Your task to perform on an android device: What's on my calendar tomorrow? Image 0: 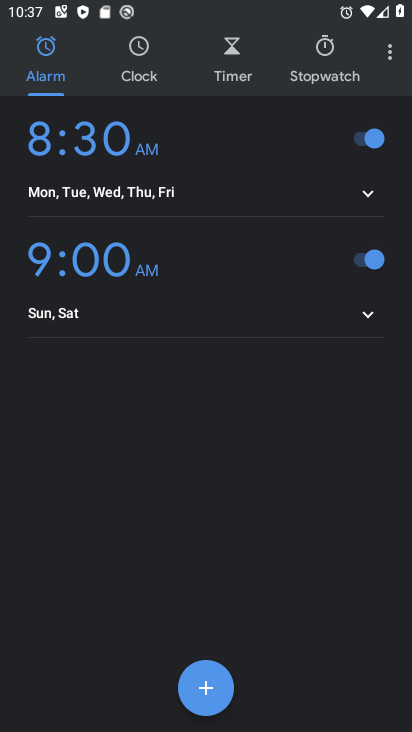
Step 0: press home button
Your task to perform on an android device: What's on my calendar tomorrow? Image 1: 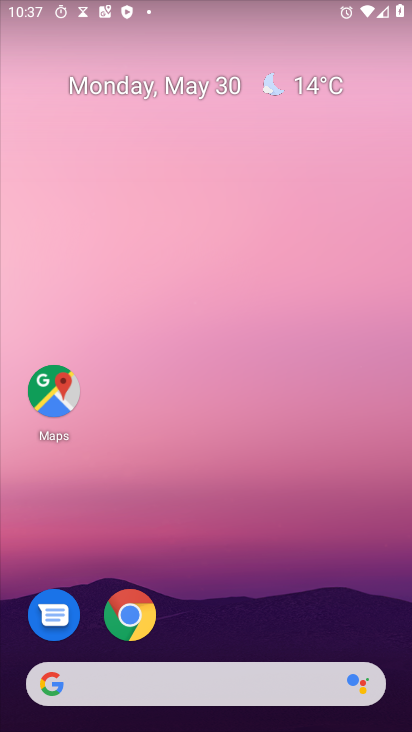
Step 1: drag from (263, 571) to (336, 85)
Your task to perform on an android device: What's on my calendar tomorrow? Image 2: 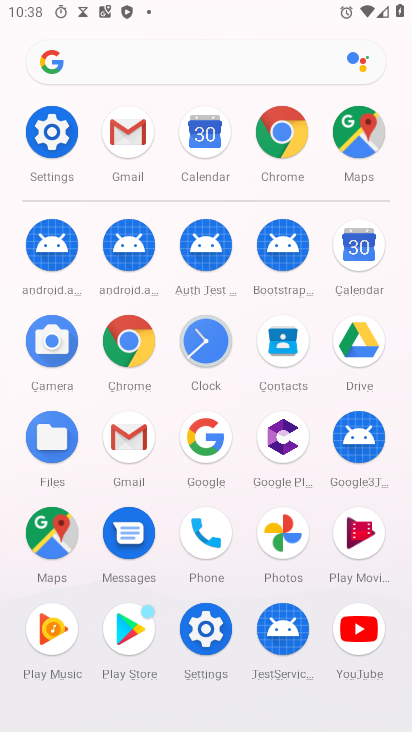
Step 2: click (374, 248)
Your task to perform on an android device: What's on my calendar tomorrow? Image 3: 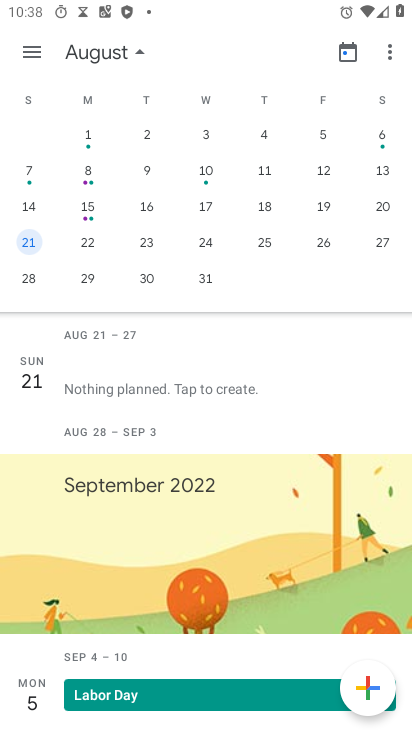
Step 3: click (91, 227)
Your task to perform on an android device: What's on my calendar tomorrow? Image 4: 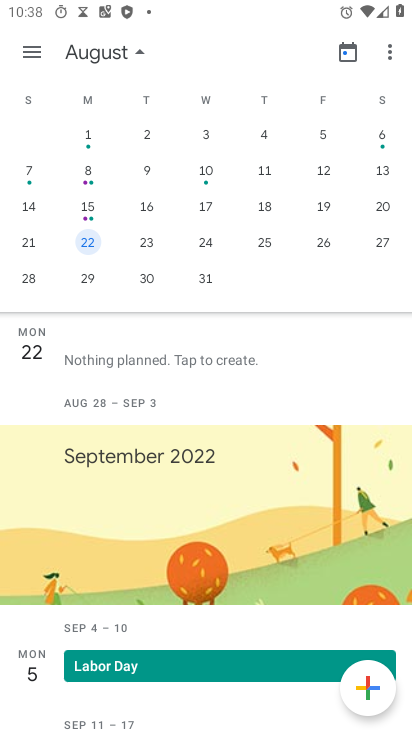
Step 4: task complete